Your task to perform on an android device: change the clock display to digital Image 0: 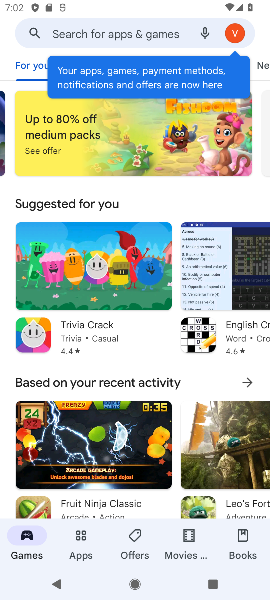
Step 0: press home button
Your task to perform on an android device: change the clock display to digital Image 1: 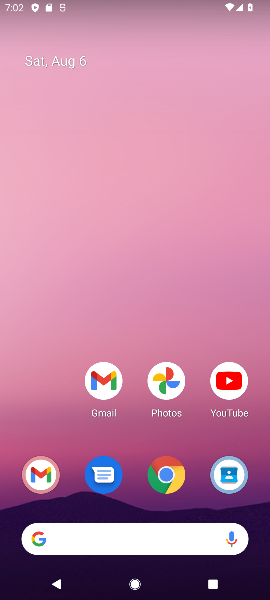
Step 1: drag from (129, 430) to (139, 103)
Your task to perform on an android device: change the clock display to digital Image 2: 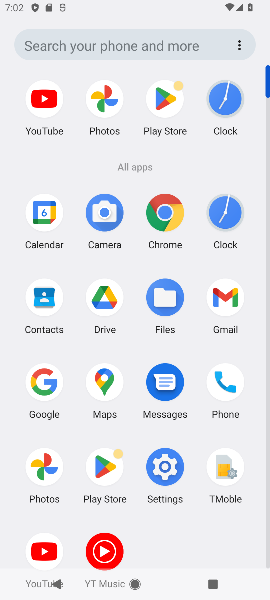
Step 2: click (232, 211)
Your task to perform on an android device: change the clock display to digital Image 3: 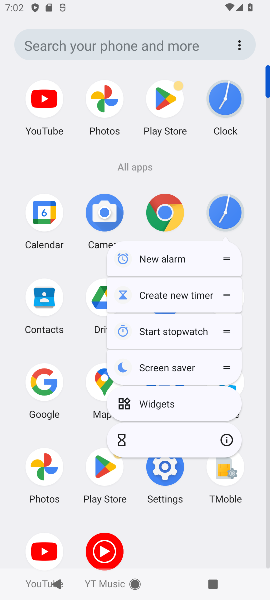
Step 3: click (232, 211)
Your task to perform on an android device: change the clock display to digital Image 4: 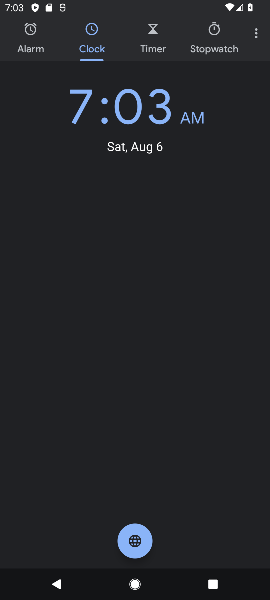
Step 4: click (253, 41)
Your task to perform on an android device: change the clock display to digital Image 5: 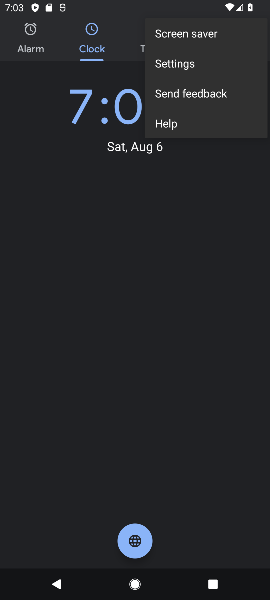
Step 5: click (162, 64)
Your task to perform on an android device: change the clock display to digital Image 6: 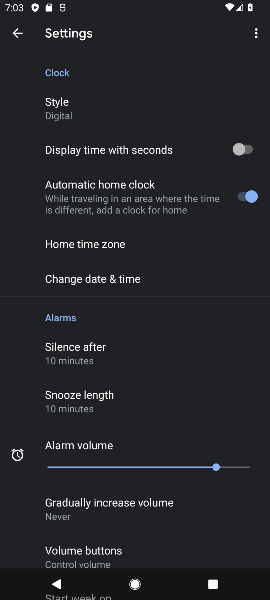
Step 6: click (81, 99)
Your task to perform on an android device: change the clock display to digital Image 7: 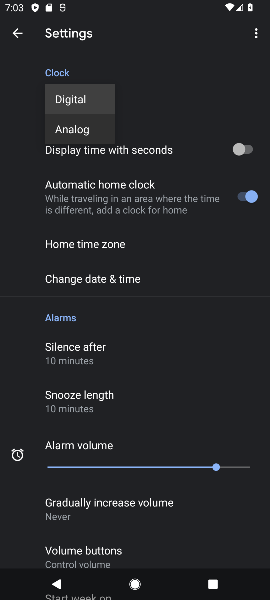
Step 7: task complete